Your task to perform on an android device: check out phone information Image 0: 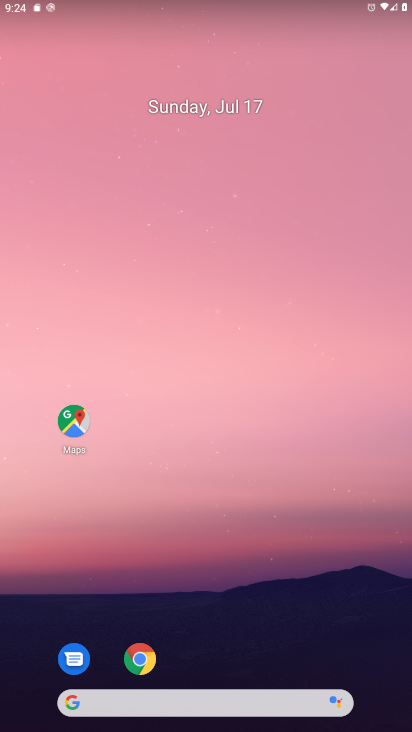
Step 0: drag from (245, 706) to (243, 181)
Your task to perform on an android device: check out phone information Image 1: 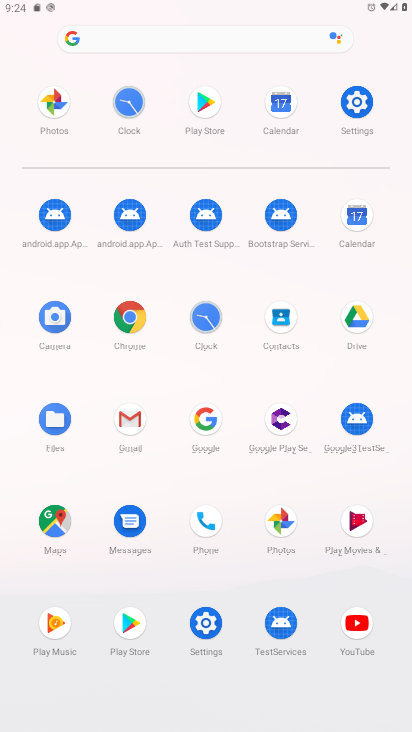
Step 1: click (200, 631)
Your task to perform on an android device: check out phone information Image 2: 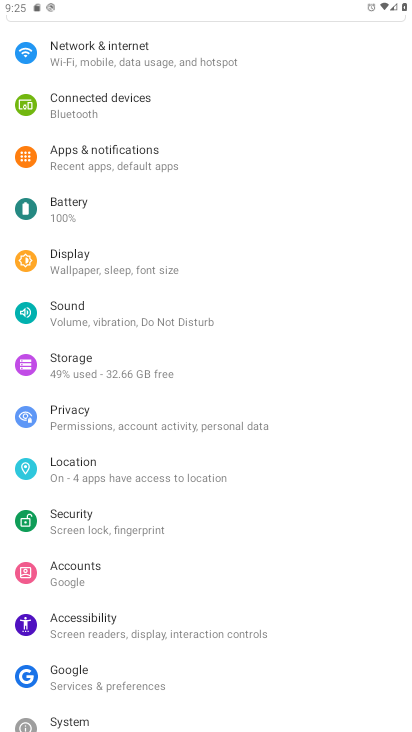
Step 2: drag from (150, 678) to (207, 102)
Your task to perform on an android device: check out phone information Image 3: 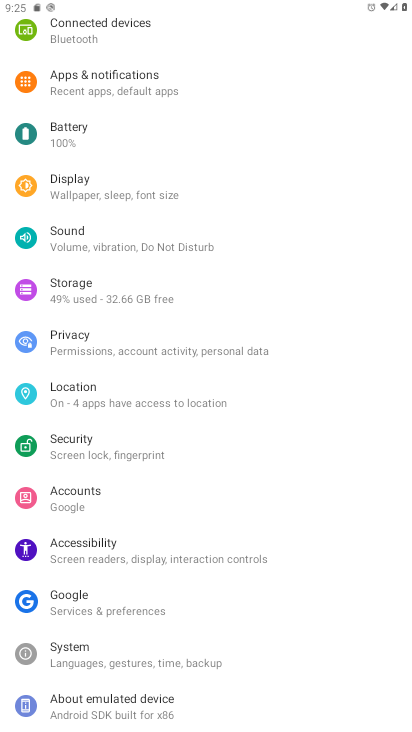
Step 3: click (127, 704)
Your task to perform on an android device: check out phone information Image 4: 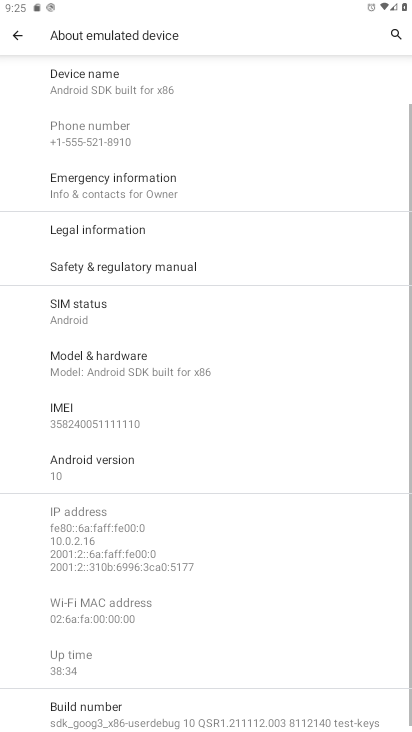
Step 4: task complete